Your task to perform on an android device: Show me the alarms in the clock app Image 0: 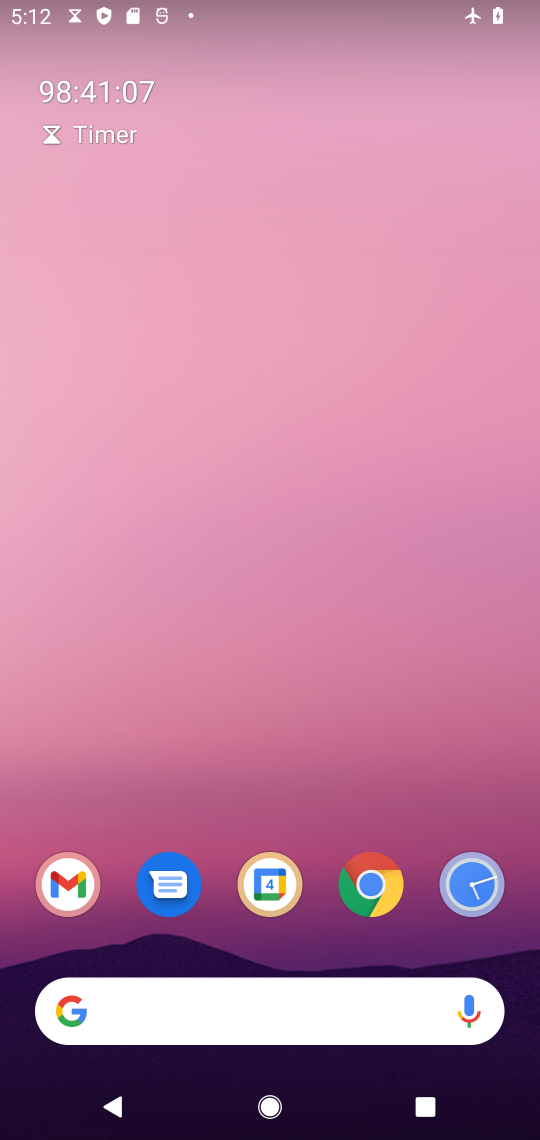
Step 0: drag from (245, 965) to (231, 204)
Your task to perform on an android device: Show me the alarms in the clock app Image 1: 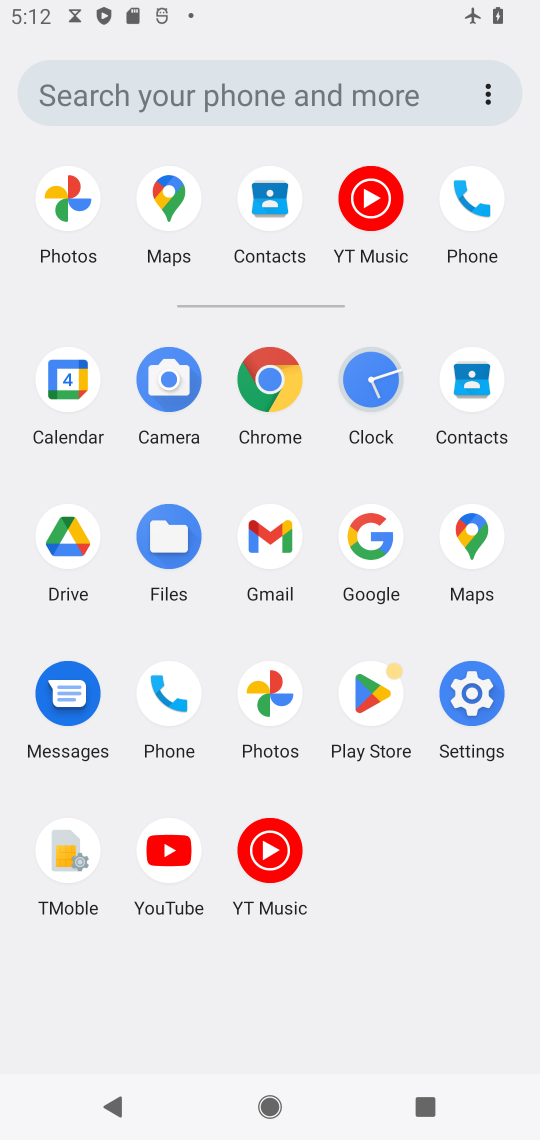
Step 1: click (361, 373)
Your task to perform on an android device: Show me the alarms in the clock app Image 2: 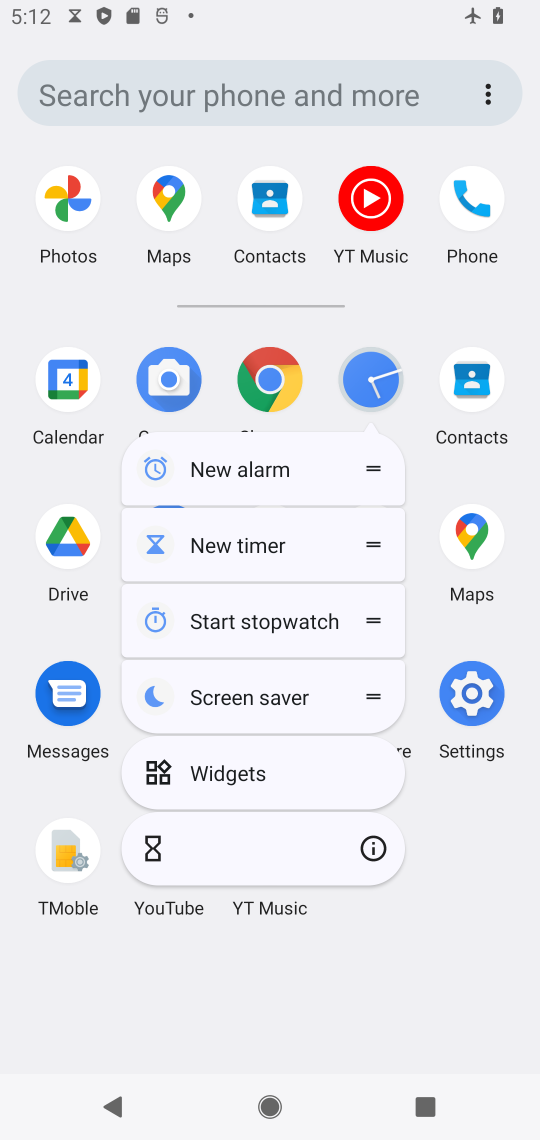
Step 2: click (368, 385)
Your task to perform on an android device: Show me the alarms in the clock app Image 3: 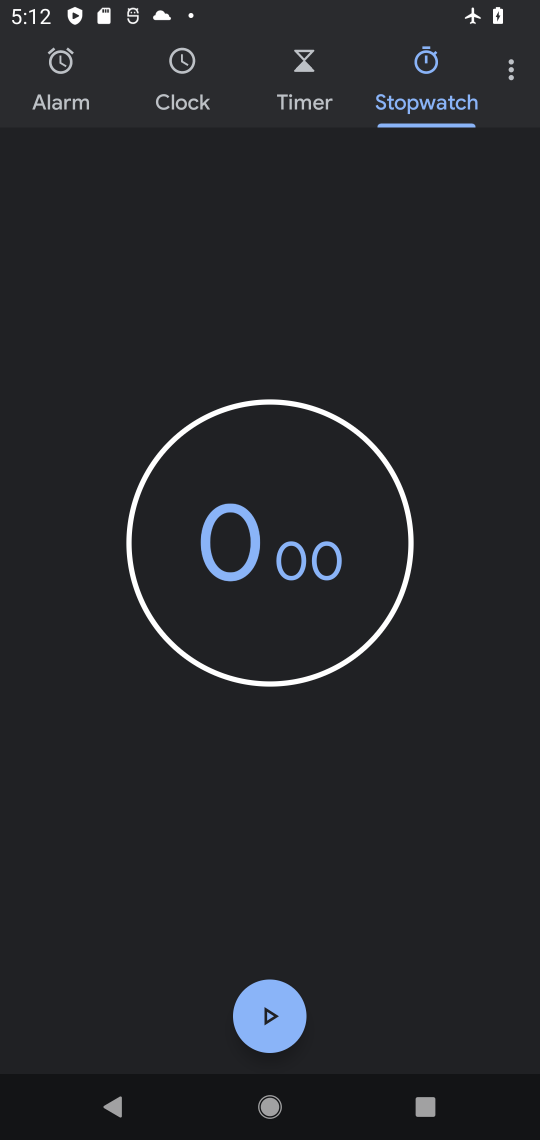
Step 3: click (59, 93)
Your task to perform on an android device: Show me the alarms in the clock app Image 4: 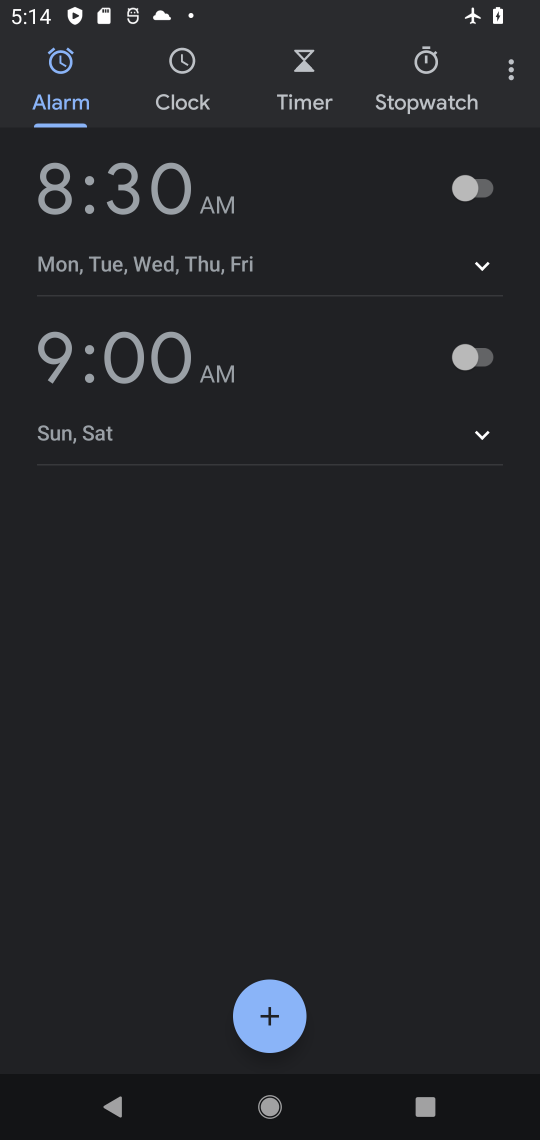
Step 4: task complete